Your task to perform on an android device: turn off translation in the chrome app Image 0: 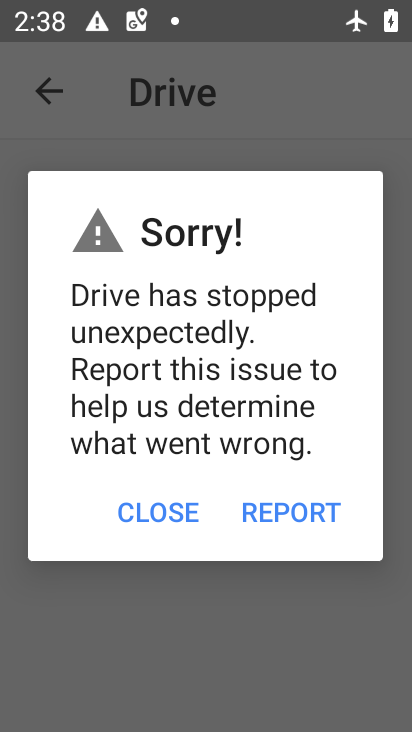
Step 0: press home button
Your task to perform on an android device: turn off translation in the chrome app Image 1: 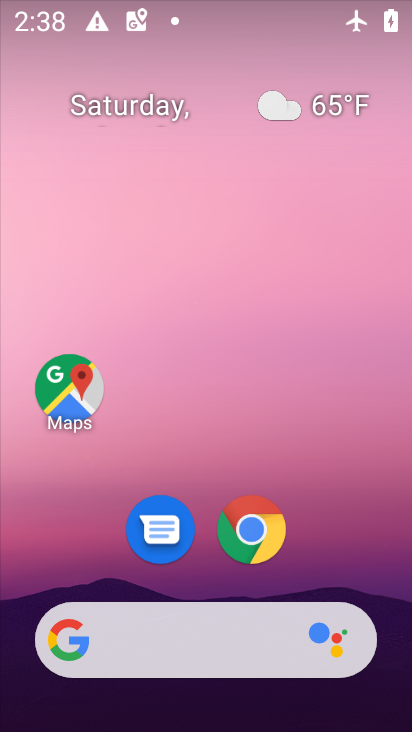
Step 1: drag from (368, 535) to (285, 66)
Your task to perform on an android device: turn off translation in the chrome app Image 2: 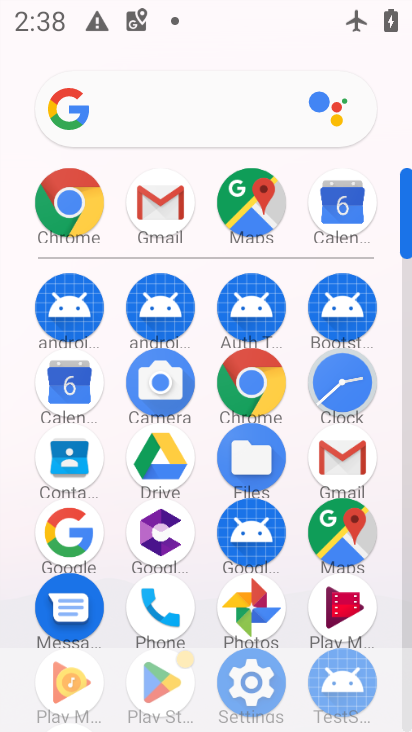
Step 2: click (77, 184)
Your task to perform on an android device: turn off translation in the chrome app Image 3: 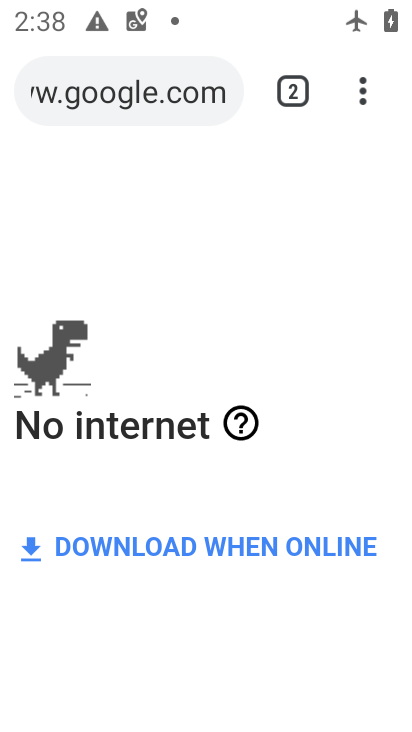
Step 3: click (372, 87)
Your task to perform on an android device: turn off translation in the chrome app Image 4: 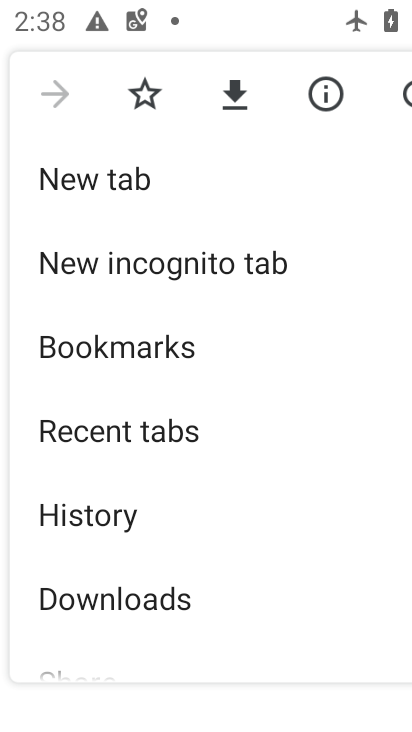
Step 4: drag from (291, 635) to (239, 246)
Your task to perform on an android device: turn off translation in the chrome app Image 5: 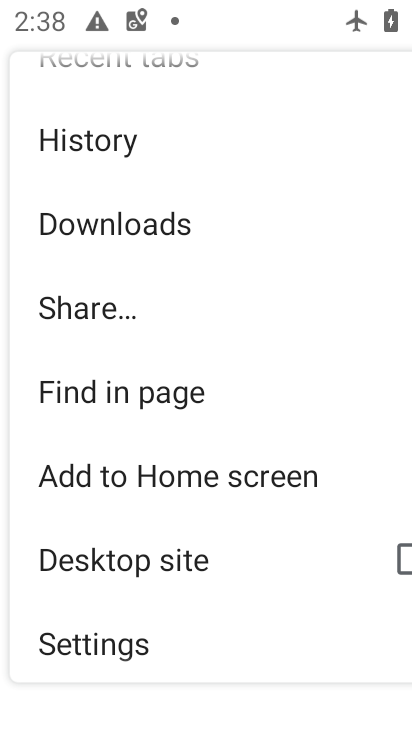
Step 5: drag from (296, 619) to (233, 243)
Your task to perform on an android device: turn off translation in the chrome app Image 6: 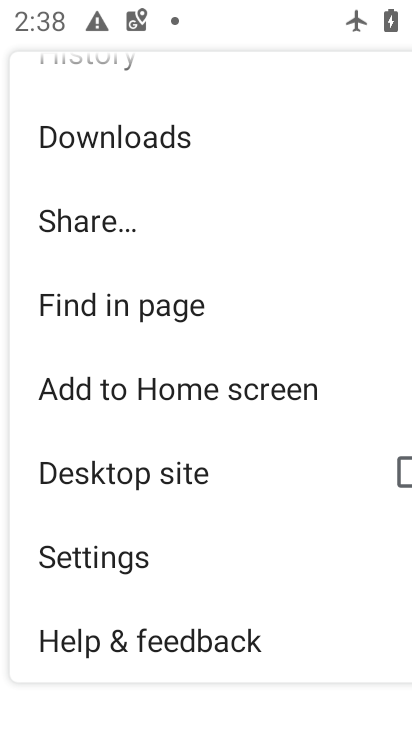
Step 6: click (201, 570)
Your task to perform on an android device: turn off translation in the chrome app Image 7: 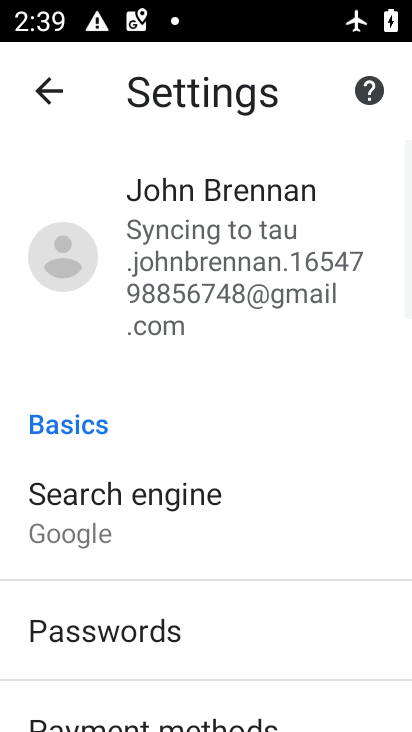
Step 7: drag from (293, 672) to (222, 2)
Your task to perform on an android device: turn off translation in the chrome app Image 8: 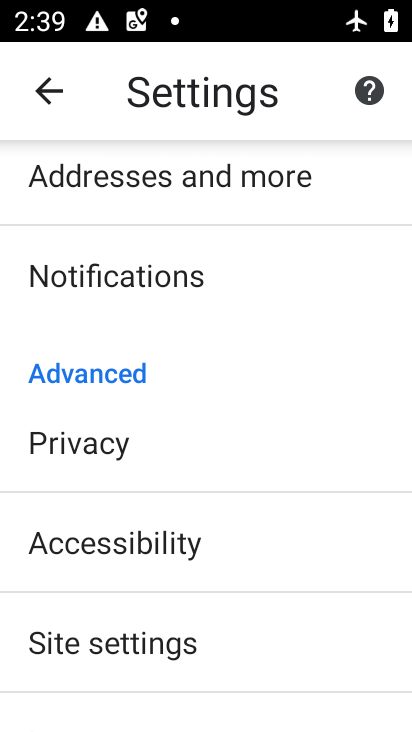
Step 8: drag from (205, 628) to (180, 315)
Your task to perform on an android device: turn off translation in the chrome app Image 9: 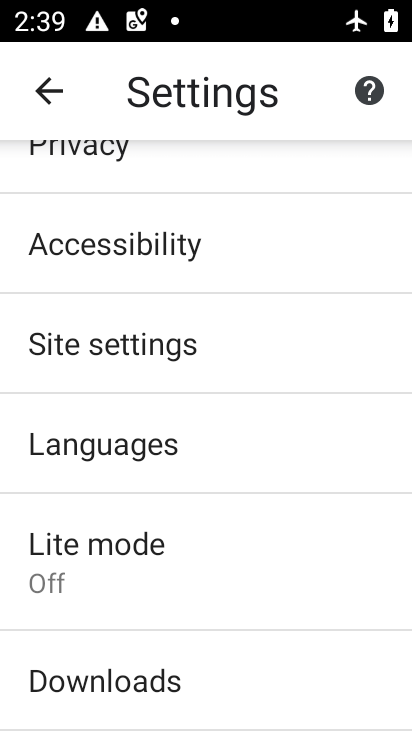
Step 9: click (185, 453)
Your task to perform on an android device: turn off translation in the chrome app Image 10: 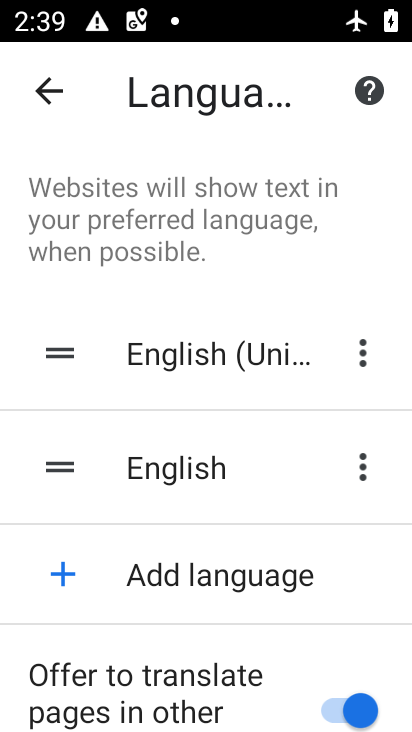
Step 10: click (341, 708)
Your task to perform on an android device: turn off translation in the chrome app Image 11: 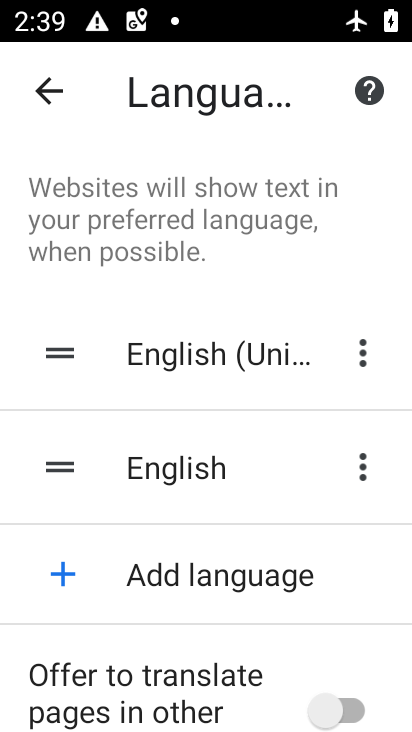
Step 11: task complete